Your task to perform on an android device: What is the recent news? Image 0: 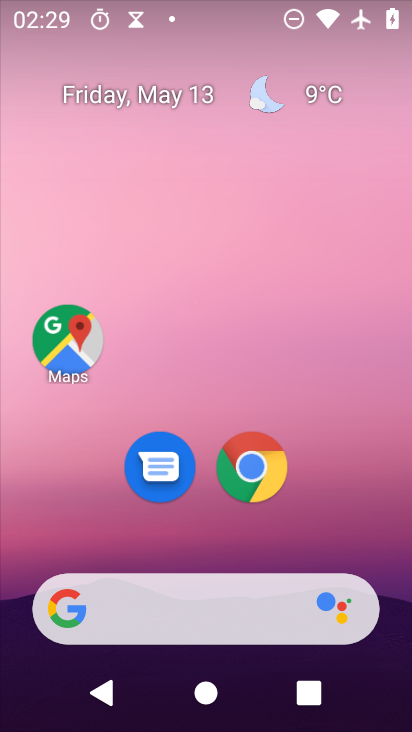
Step 0: drag from (304, 544) to (130, 29)
Your task to perform on an android device: What is the recent news? Image 1: 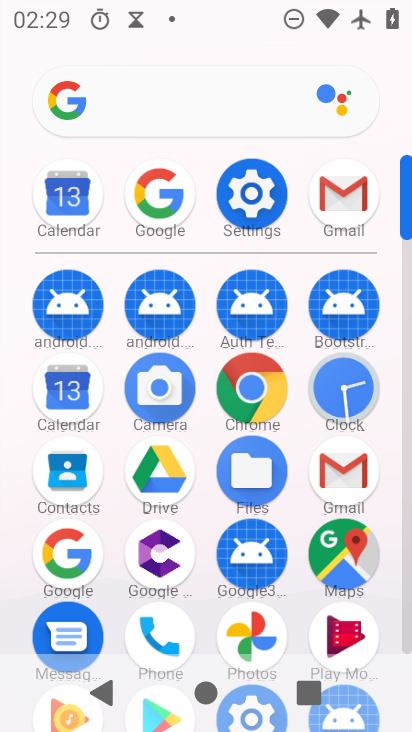
Step 1: click (149, 190)
Your task to perform on an android device: What is the recent news? Image 2: 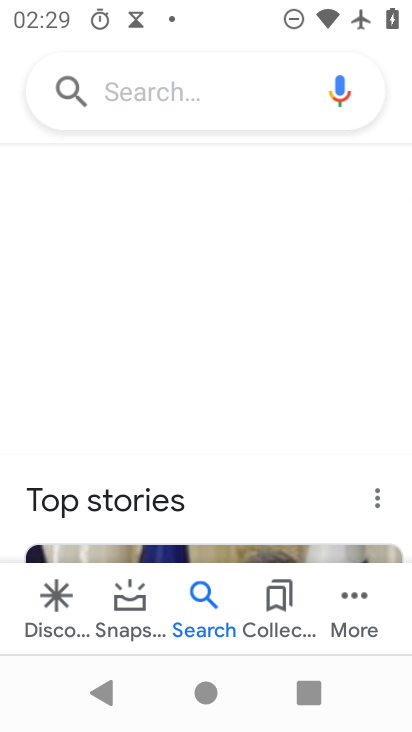
Step 2: click (153, 73)
Your task to perform on an android device: What is the recent news? Image 3: 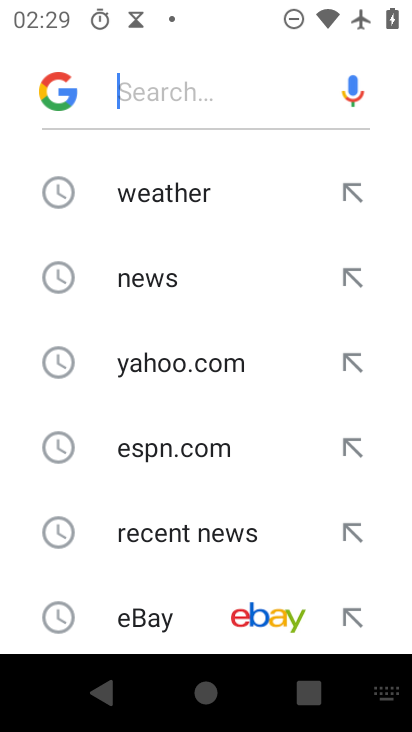
Step 3: click (212, 512)
Your task to perform on an android device: What is the recent news? Image 4: 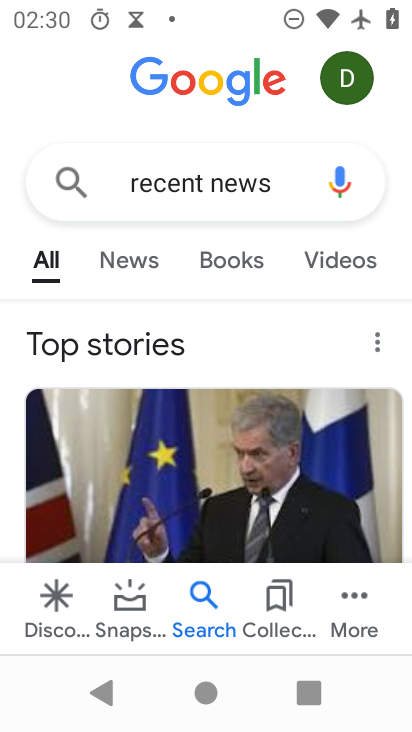
Step 4: task complete